Your task to perform on an android device: Show me the alarms in the clock app Image 0: 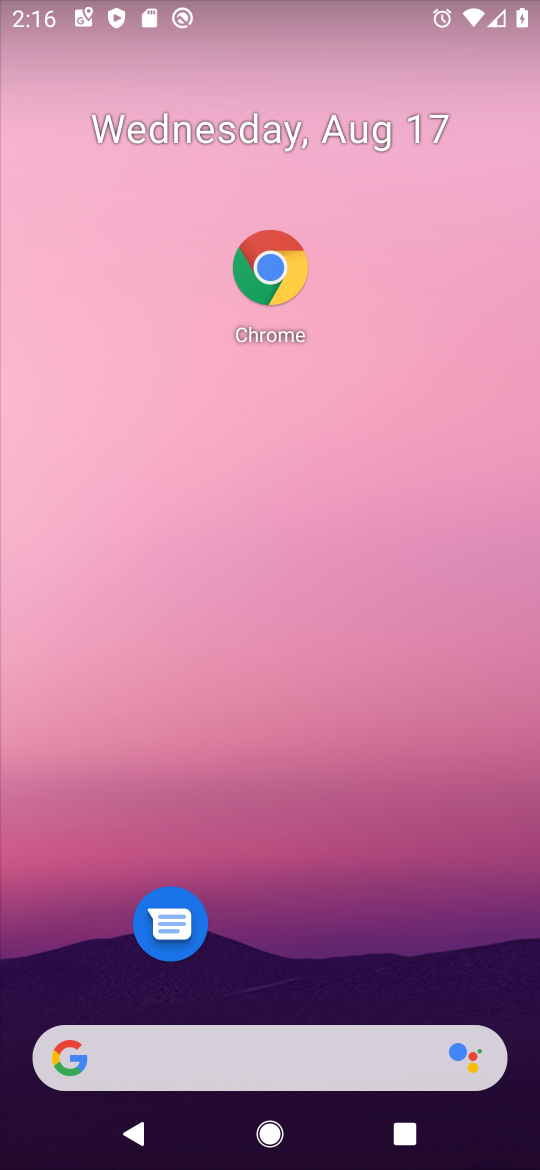
Step 0: drag from (244, 246) to (219, 71)
Your task to perform on an android device: Show me the alarms in the clock app Image 1: 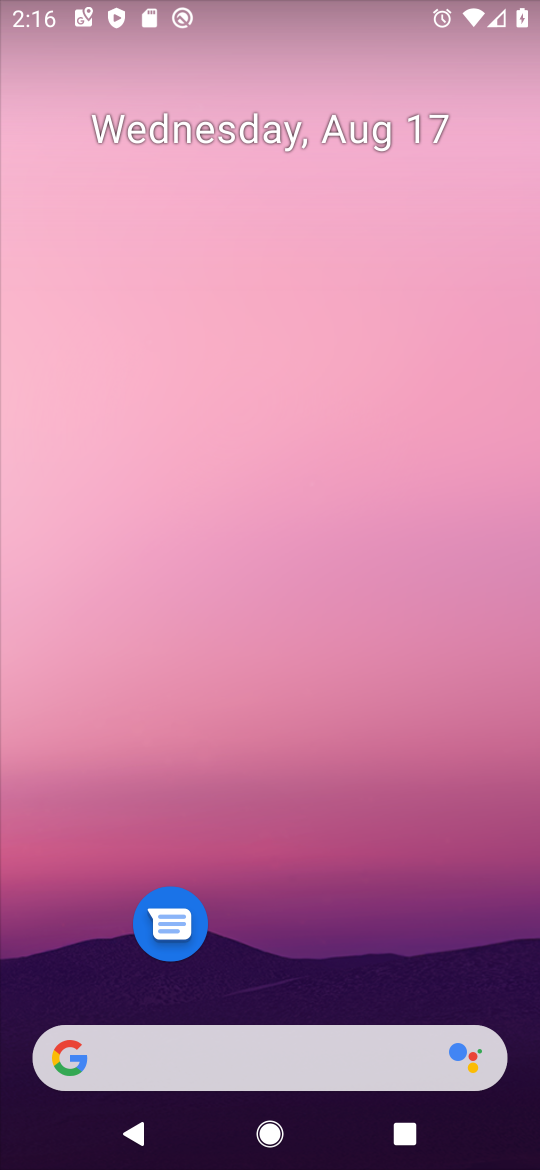
Step 1: click (270, 786)
Your task to perform on an android device: Show me the alarms in the clock app Image 2: 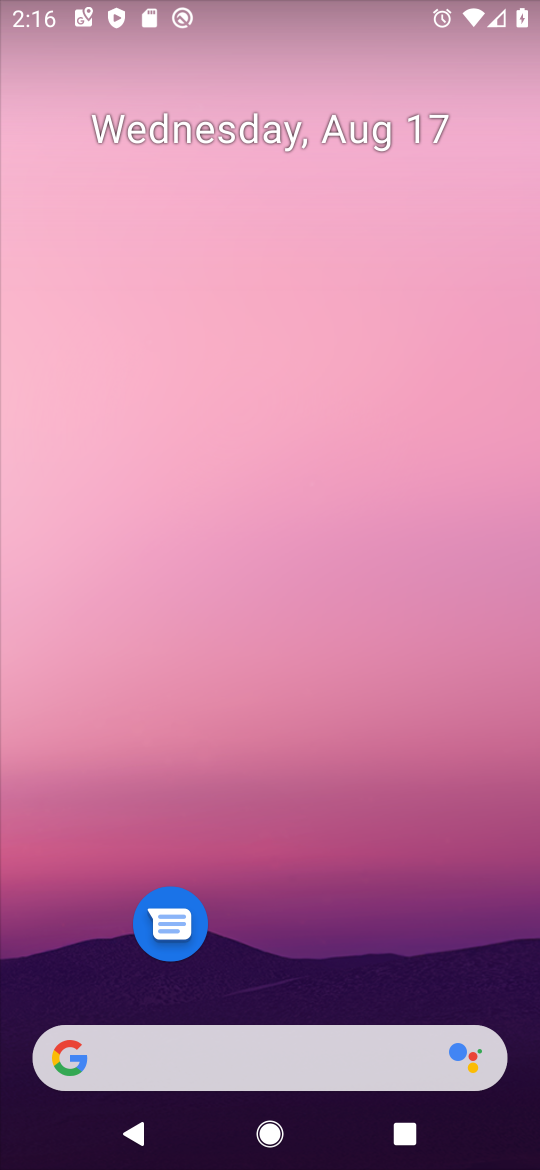
Step 2: drag from (251, 792) to (155, 83)
Your task to perform on an android device: Show me the alarms in the clock app Image 3: 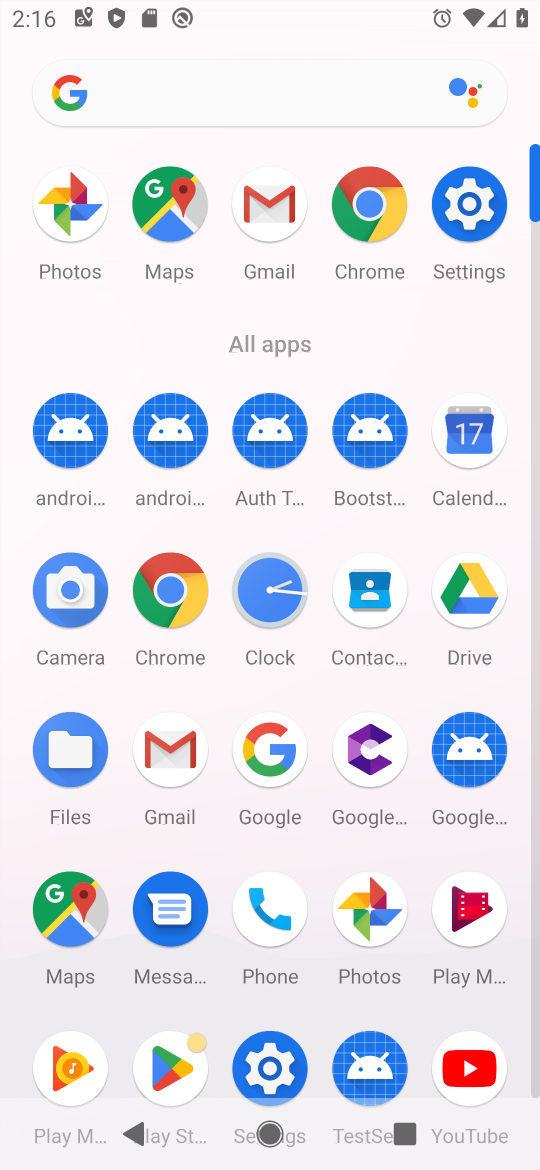
Step 3: click (276, 596)
Your task to perform on an android device: Show me the alarms in the clock app Image 4: 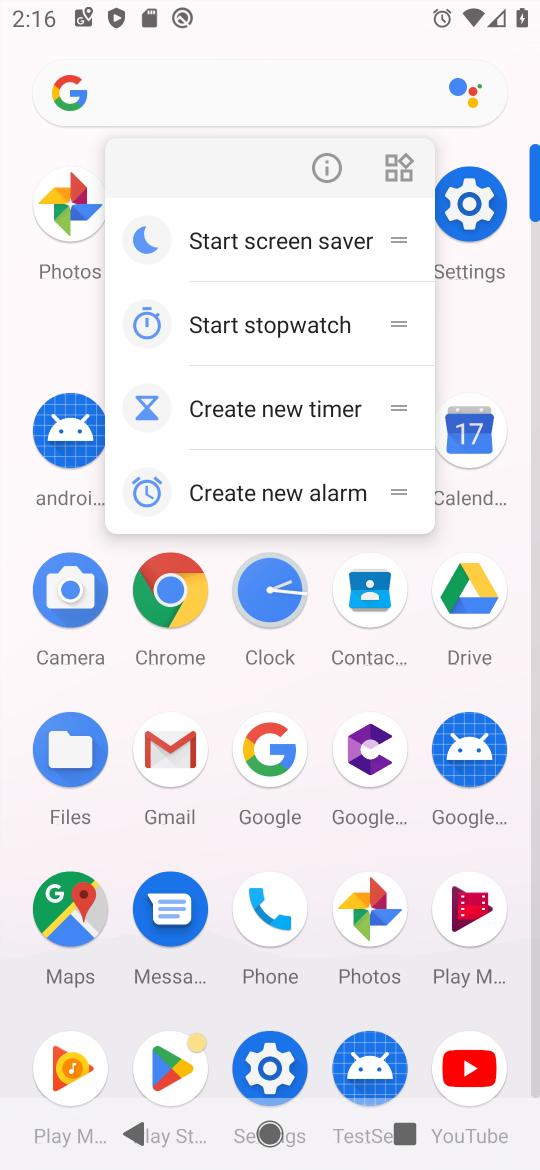
Step 4: click (266, 620)
Your task to perform on an android device: Show me the alarms in the clock app Image 5: 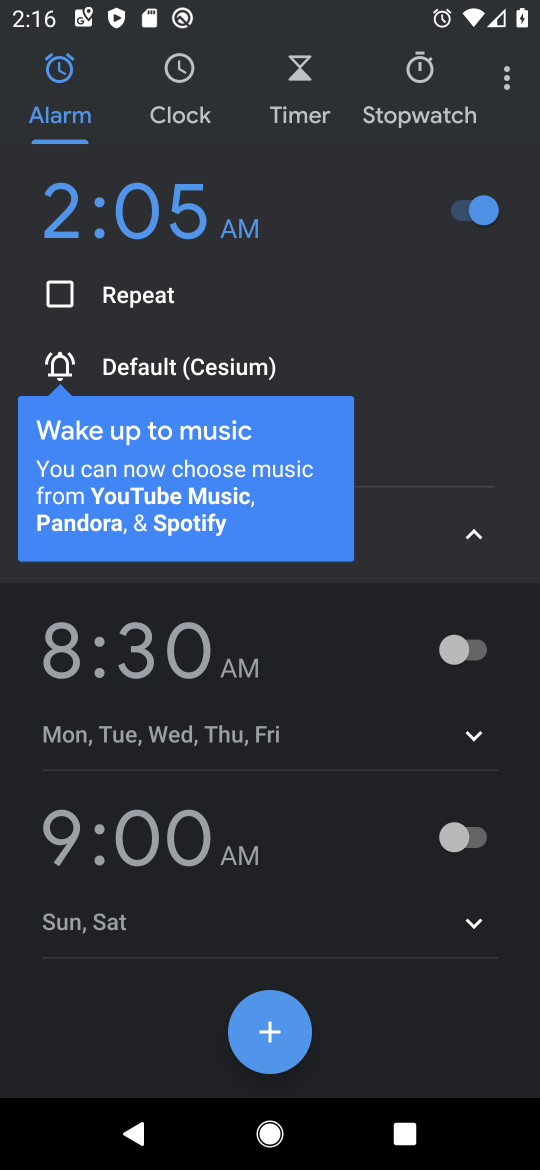
Step 5: task complete